Your task to perform on an android device: Open CNN.com Image 0: 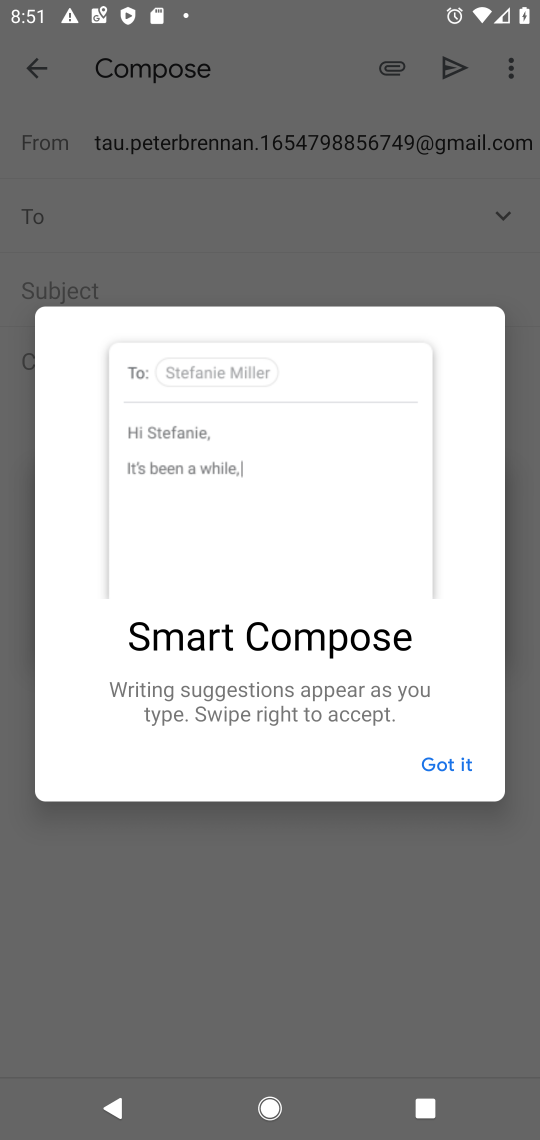
Step 0: press home button
Your task to perform on an android device: Open CNN.com Image 1: 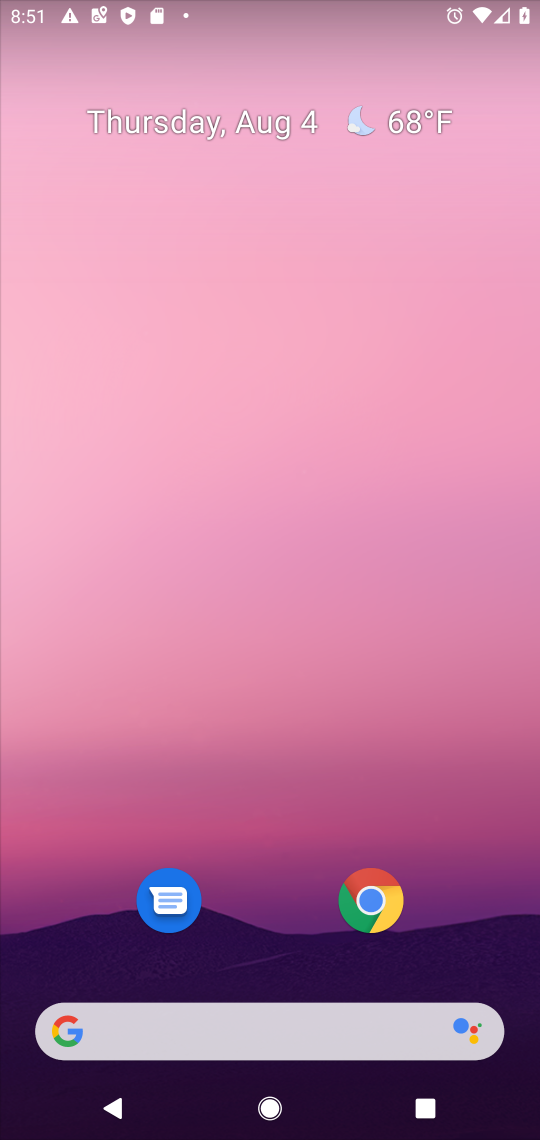
Step 1: click (372, 901)
Your task to perform on an android device: Open CNN.com Image 2: 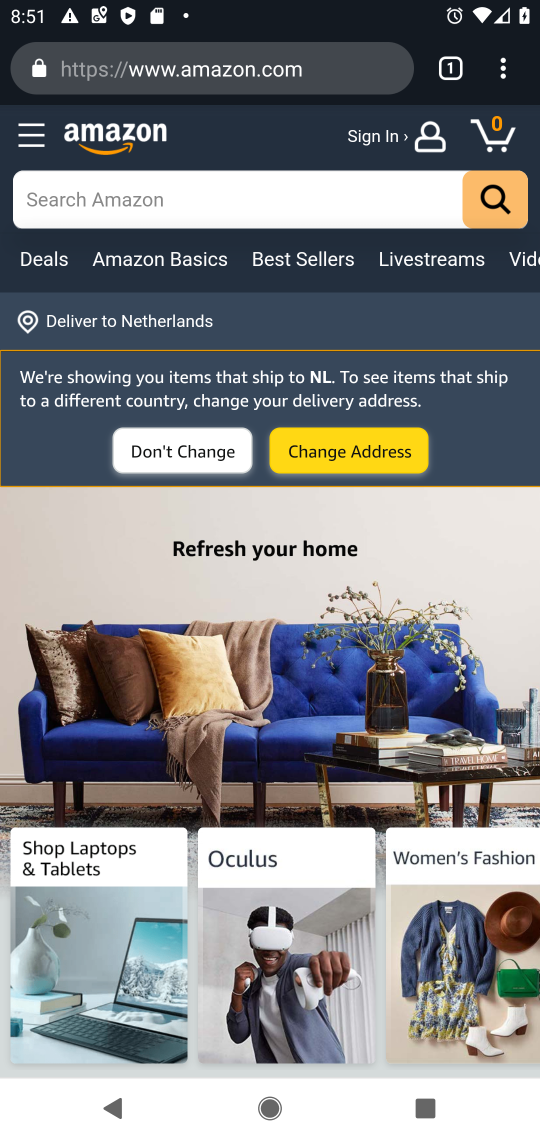
Step 2: click (306, 81)
Your task to perform on an android device: Open CNN.com Image 3: 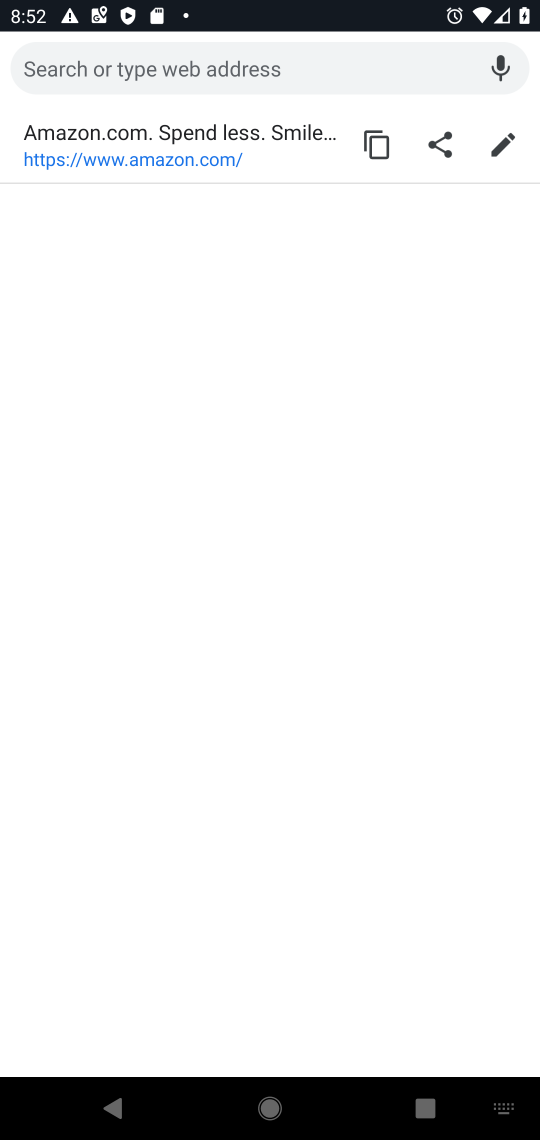
Step 3: type "CNN.com"
Your task to perform on an android device: Open CNN.com Image 4: 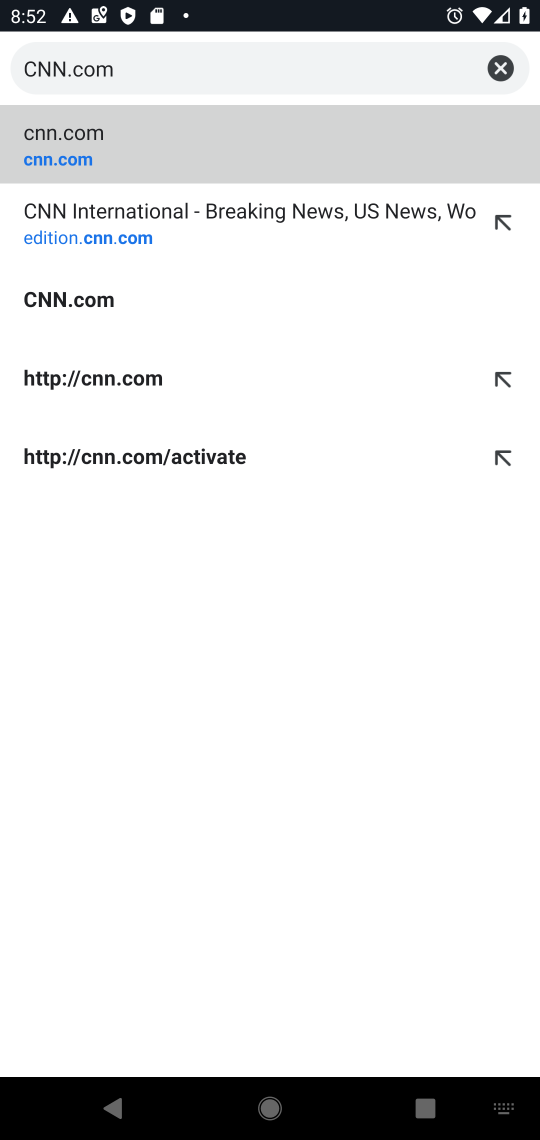
Step 4: click (74, 296)
Your task to perform on an android device: Open CNN.com Image 5: 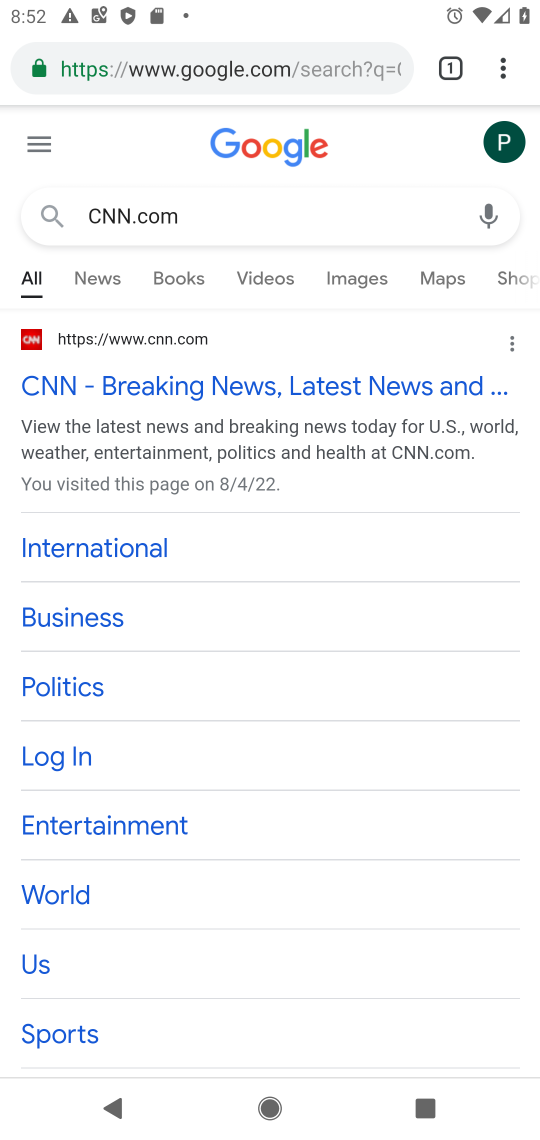
Step 5: click (240, 387)
Your task to perform on an android device: Open CNN.com Image 6: 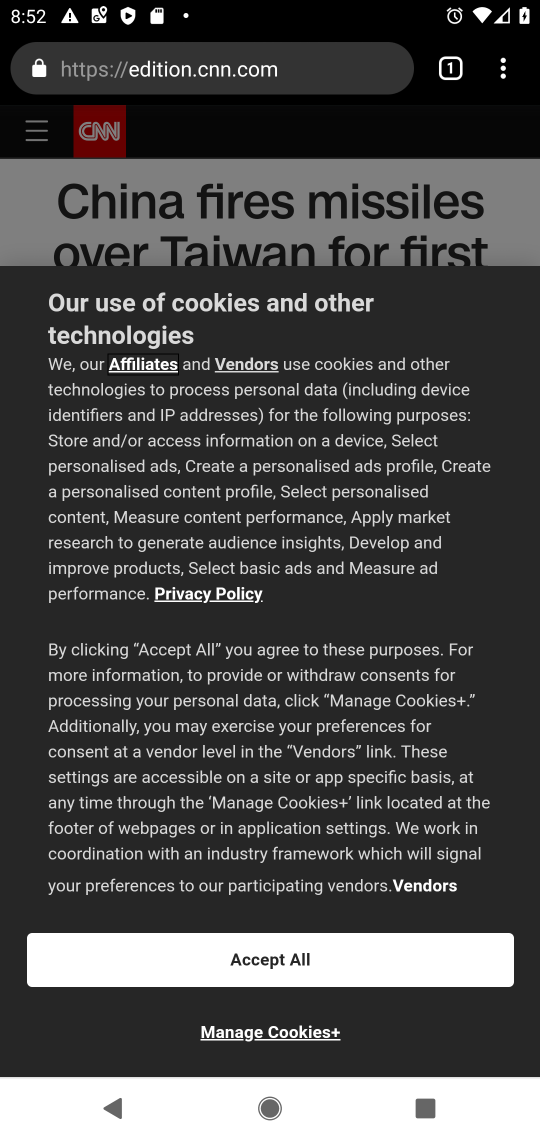
Step 6: click (300, 960)
Your task to perform on an android device: Open CNN.com Image 7: 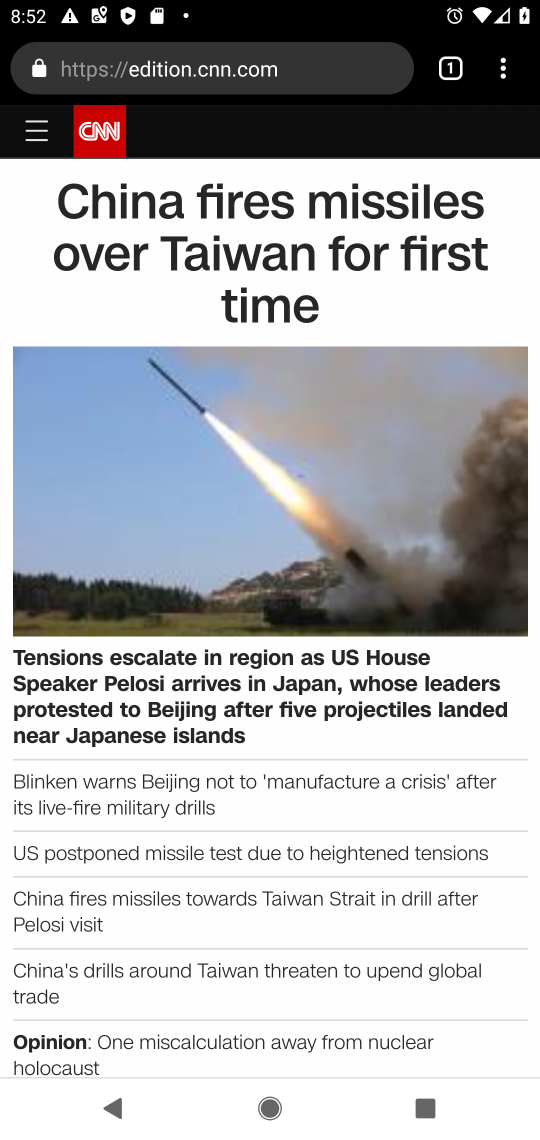
Step 7: task complete